Your task to perform on an android device: Open Android settings Image 0: 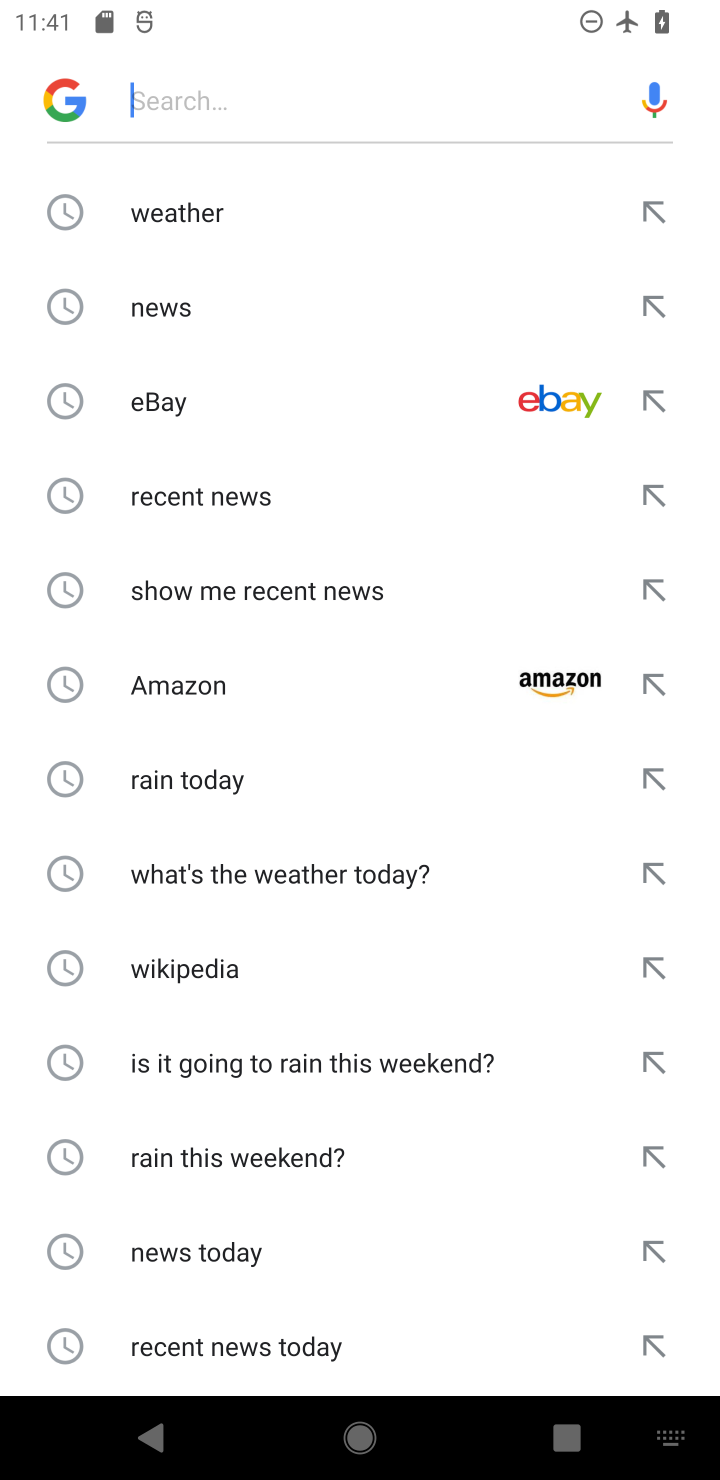
Step 0: press home button
Your task to perform on an android device: Open Android settings Image 1: 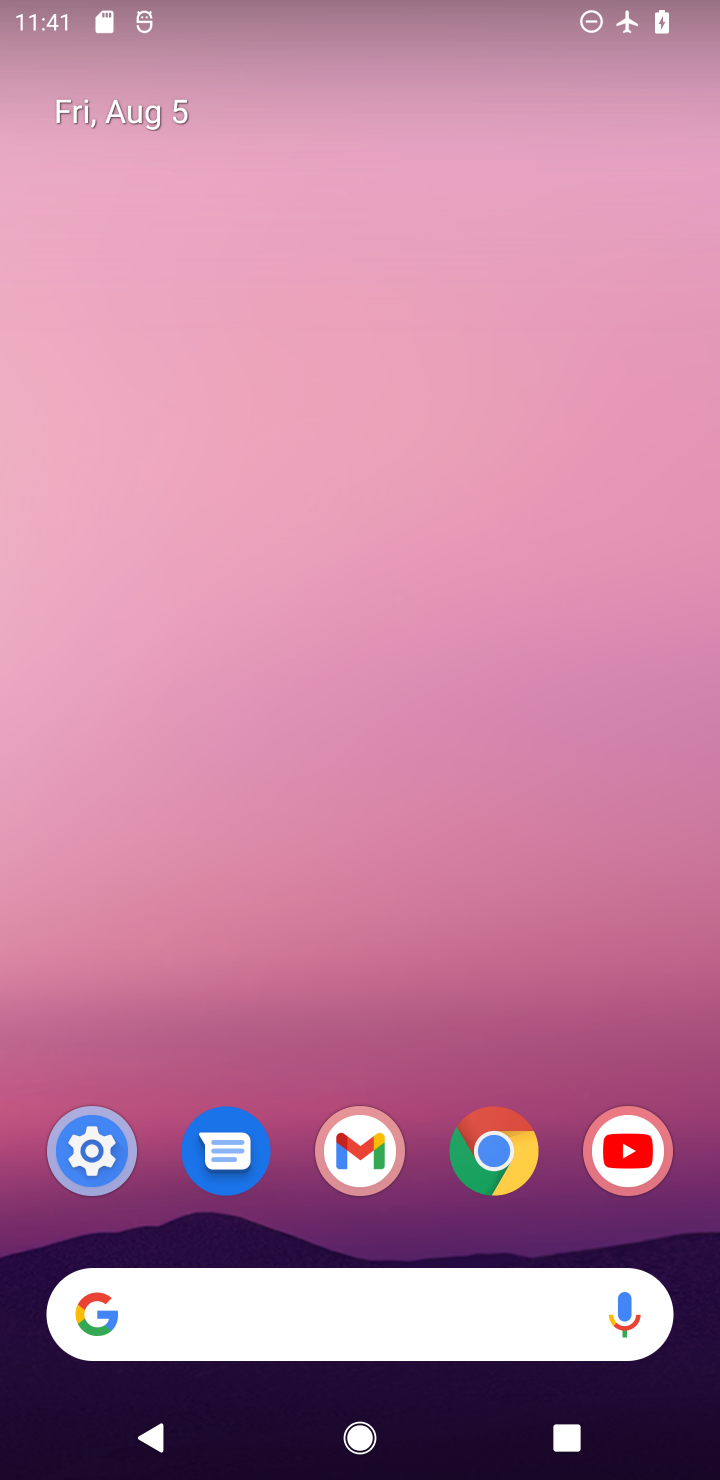
Step 1: click (101, 1167)
Your task to perform on an android device: Open Android settings Image 2: 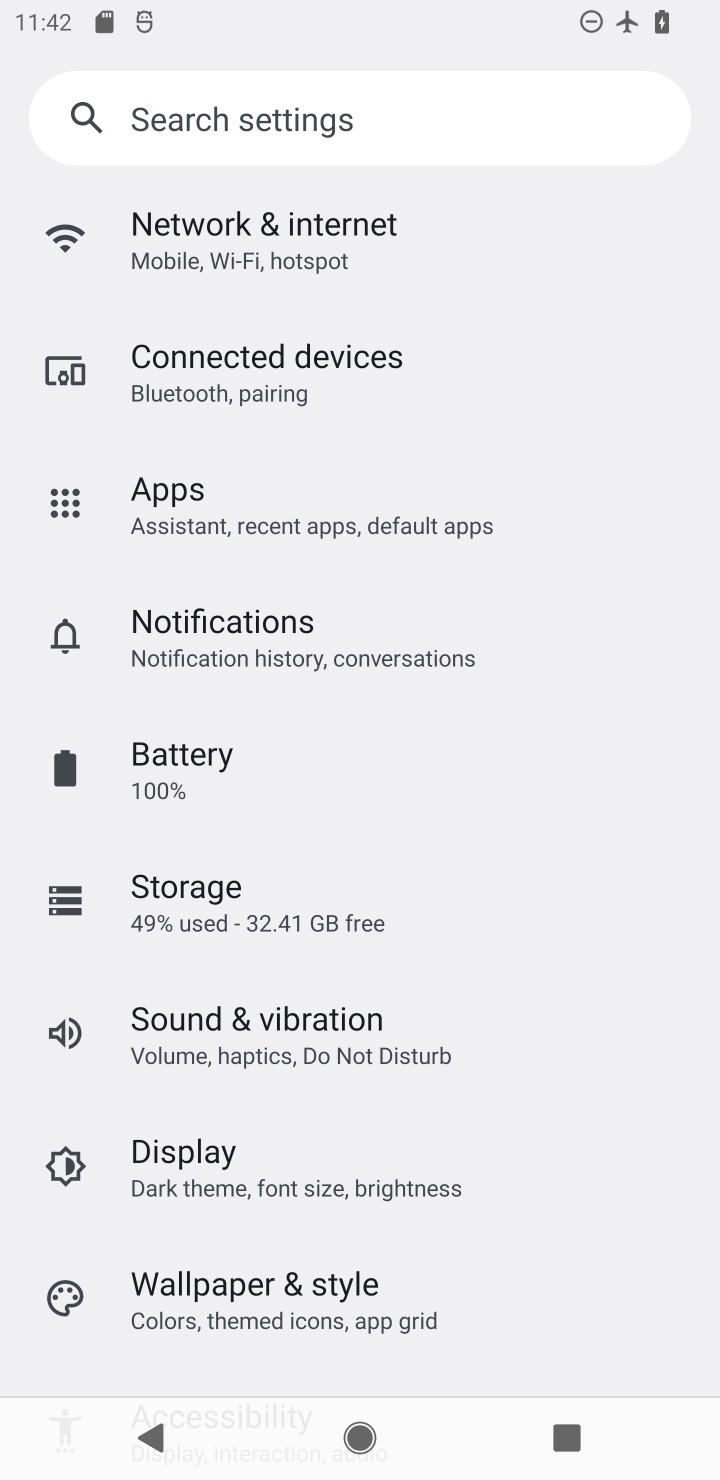
Step 2: drag from (313, 1243) to (313, 543)
Your task to perform on an android device: Open Android settings Image 3: 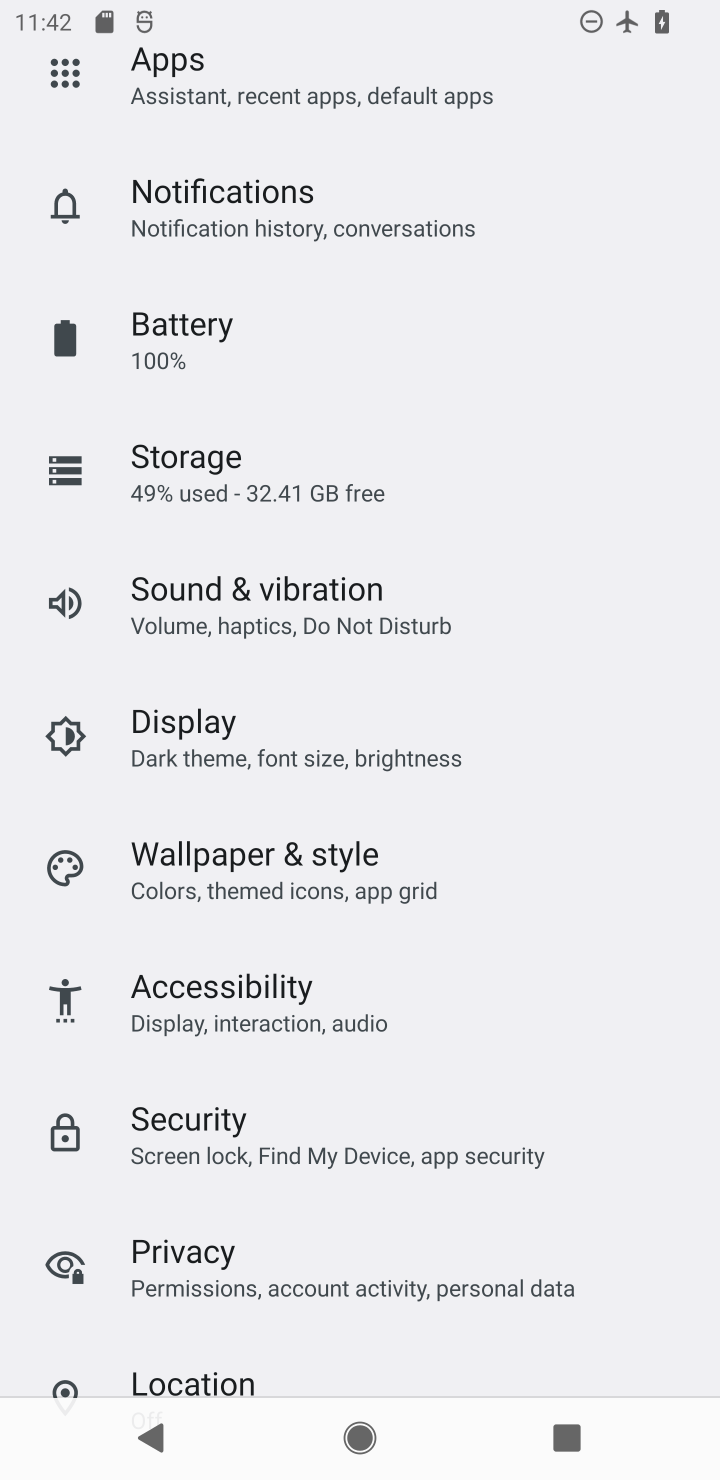
Step 3: drag from (300, 1251) to (284, 482)
Your task to perform on an android device: Open Android settings Image 4: 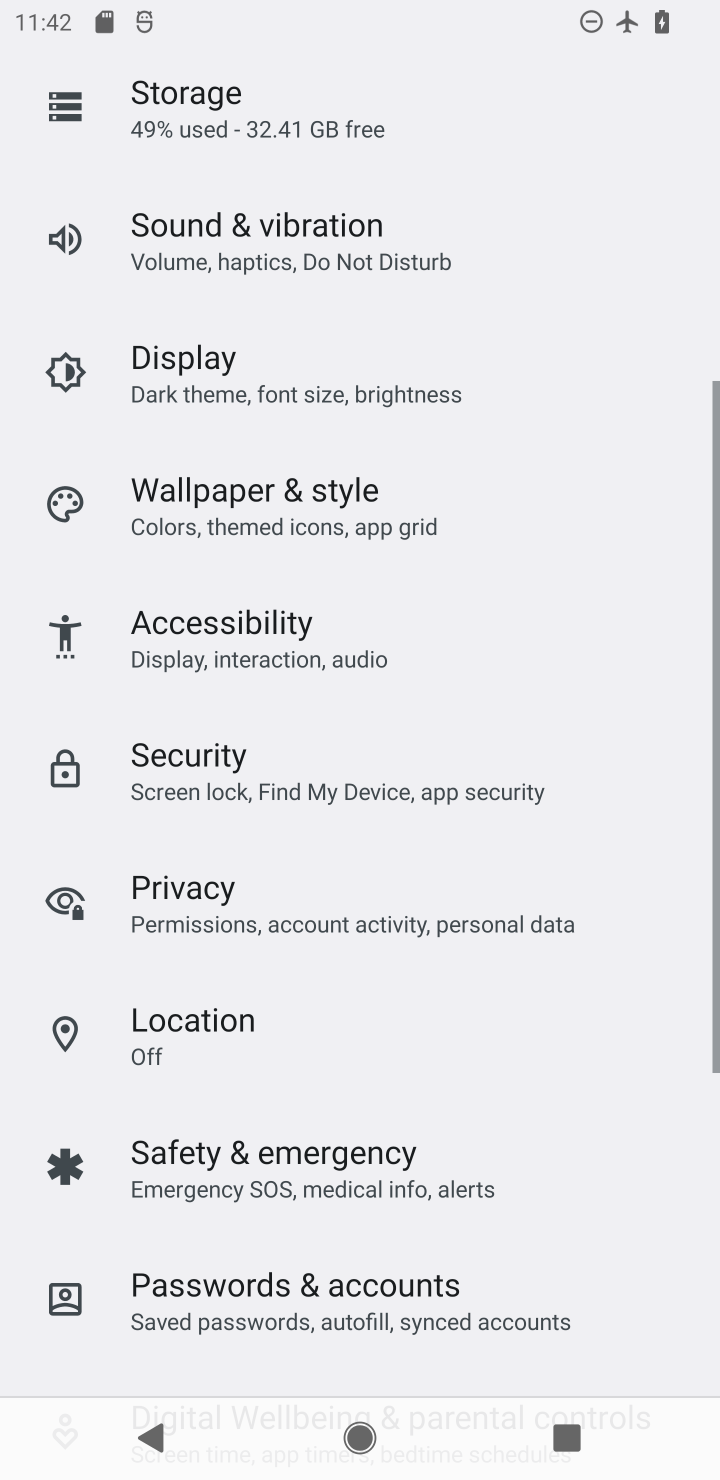
Step 4: drag from (320, 1086) to (285, 413)
Your task to perform on an android device: Open Android settings Image 5: 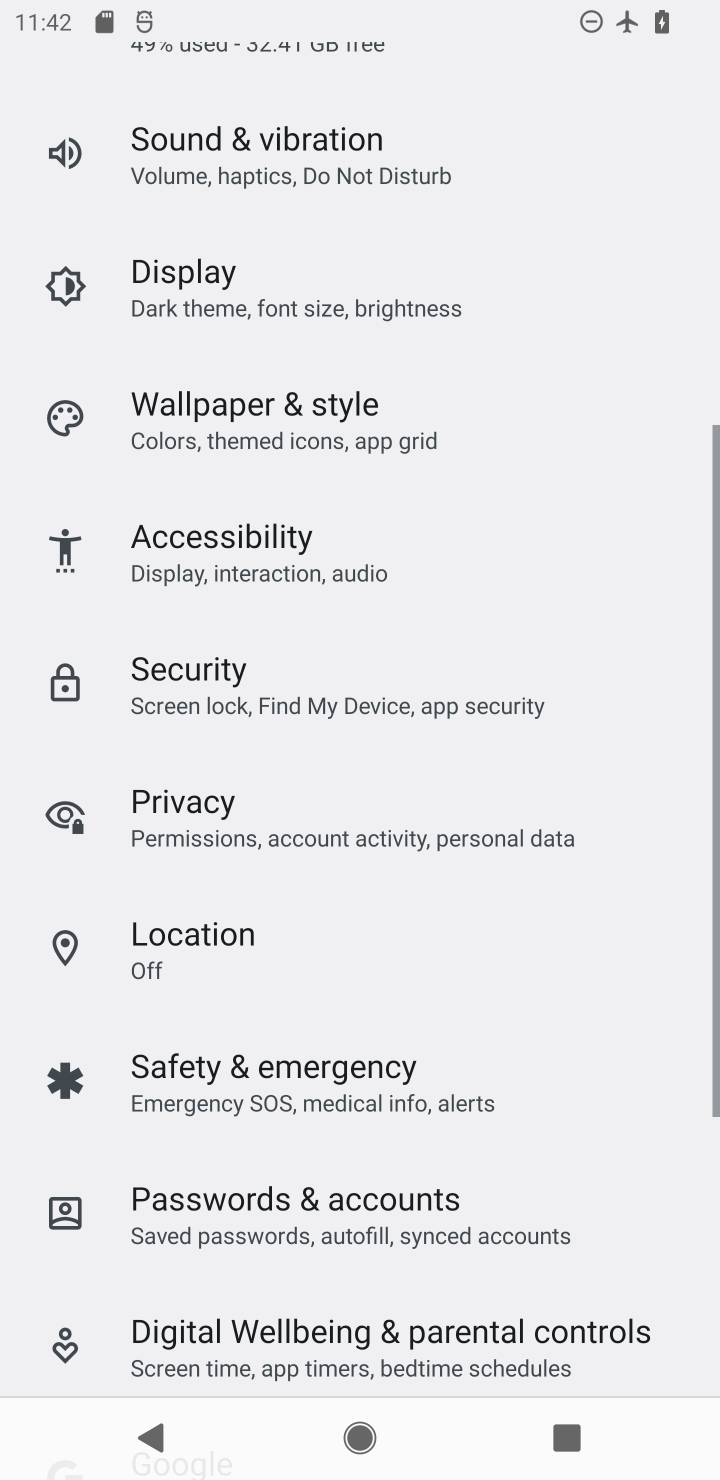
Step 5: drag from (331, 961) to (333, 332)
Your task to perform on an android device: Open Android settings Image 6: 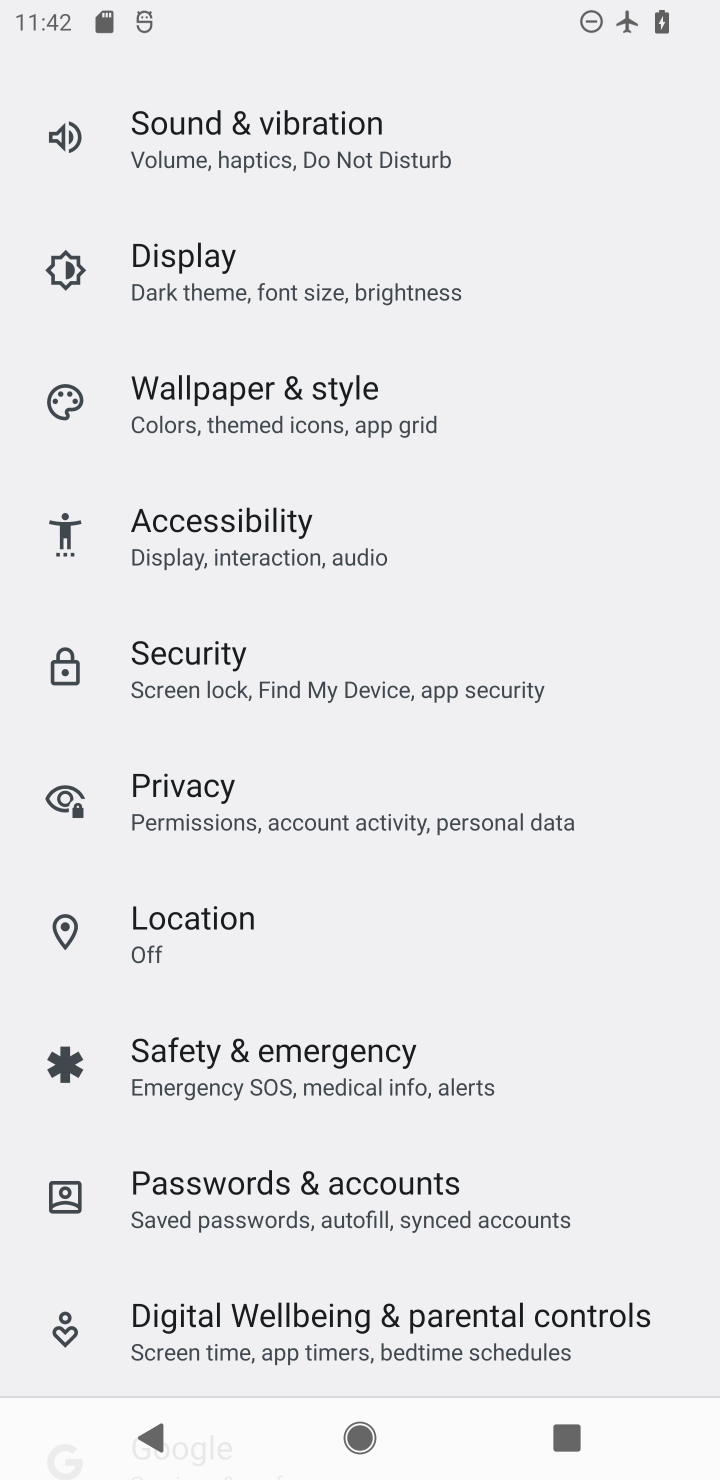
Step 6: drag from (388, 728) to (407, 329)
Your task to perform on an android device: Open Android settings Image 7: 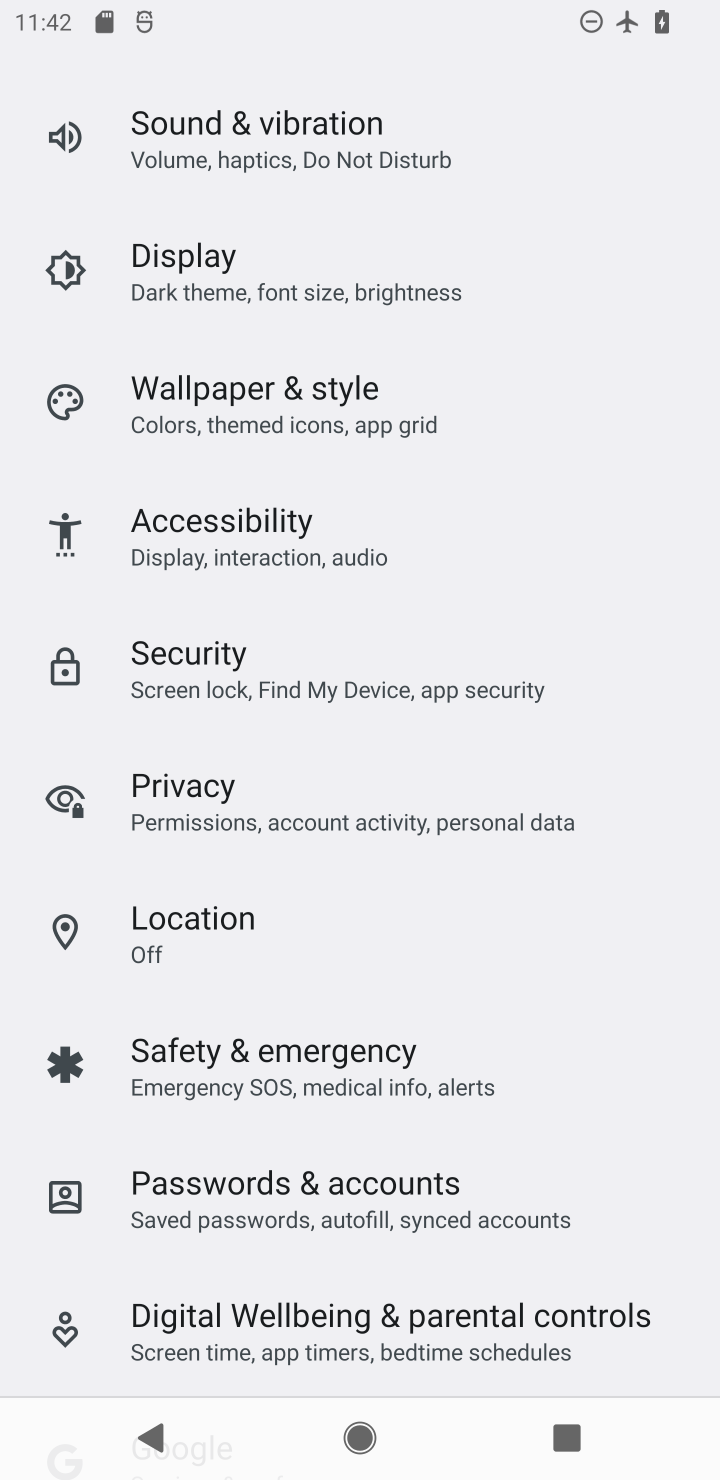
Step 7: drag from (402, 1161) to (402, 396)
Your task to perform on an android device: Open Android settings Image 8: 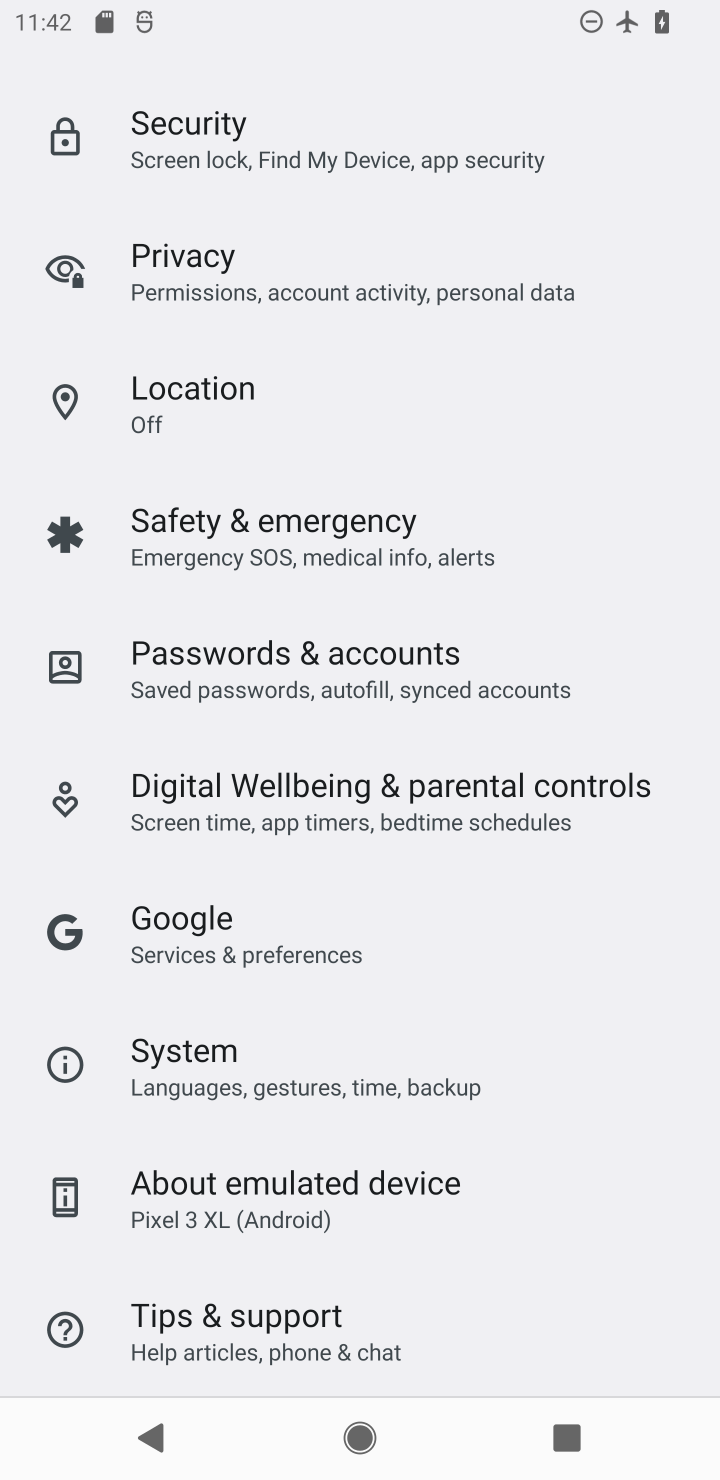
Step 8: click (276, 1222)
Your task to perform on an android device: Open Android settings Image 9: 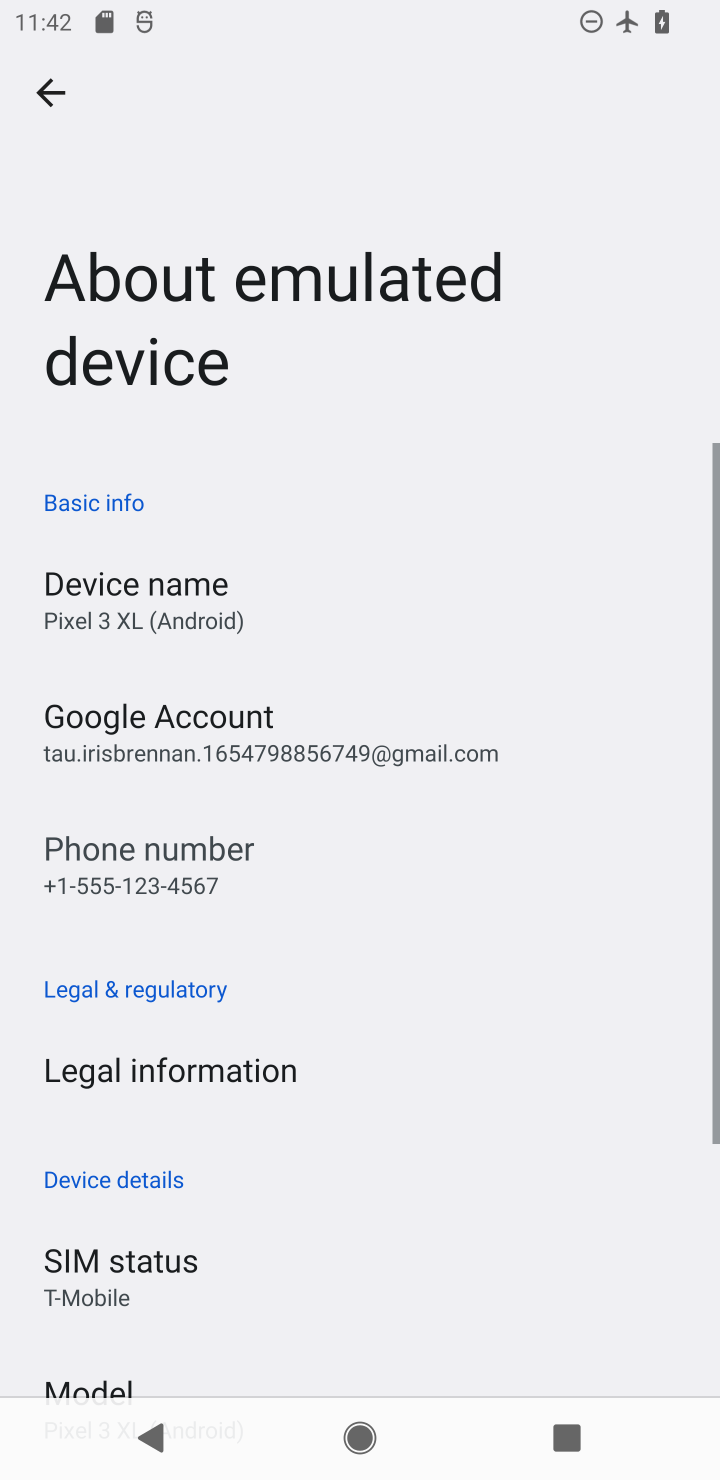
Step 9: drag from (276, 1152) to (355, 347)
Your task to perform on an android device: Open Android settings Image 10: 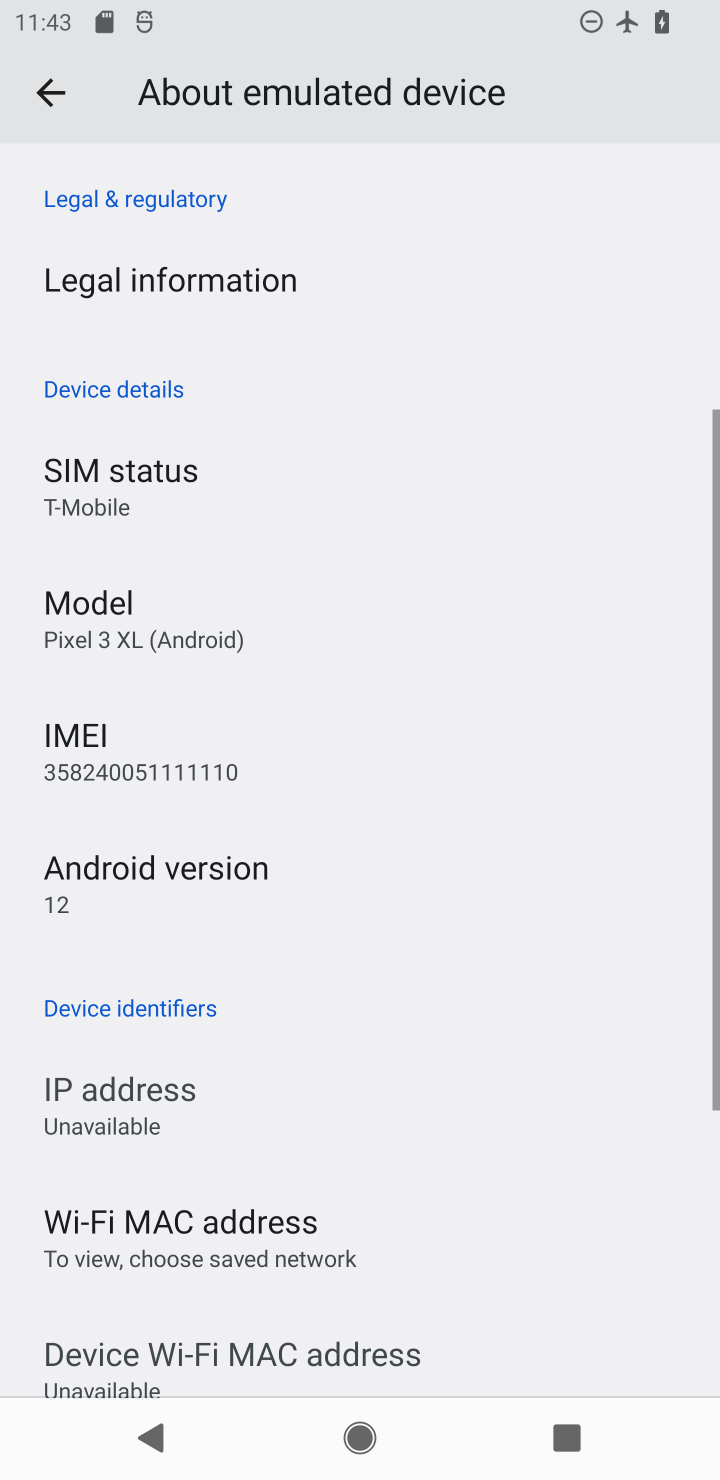
Step 10: click (174, 902)
Your task to perform on an android device: Open Android settings Image 11: 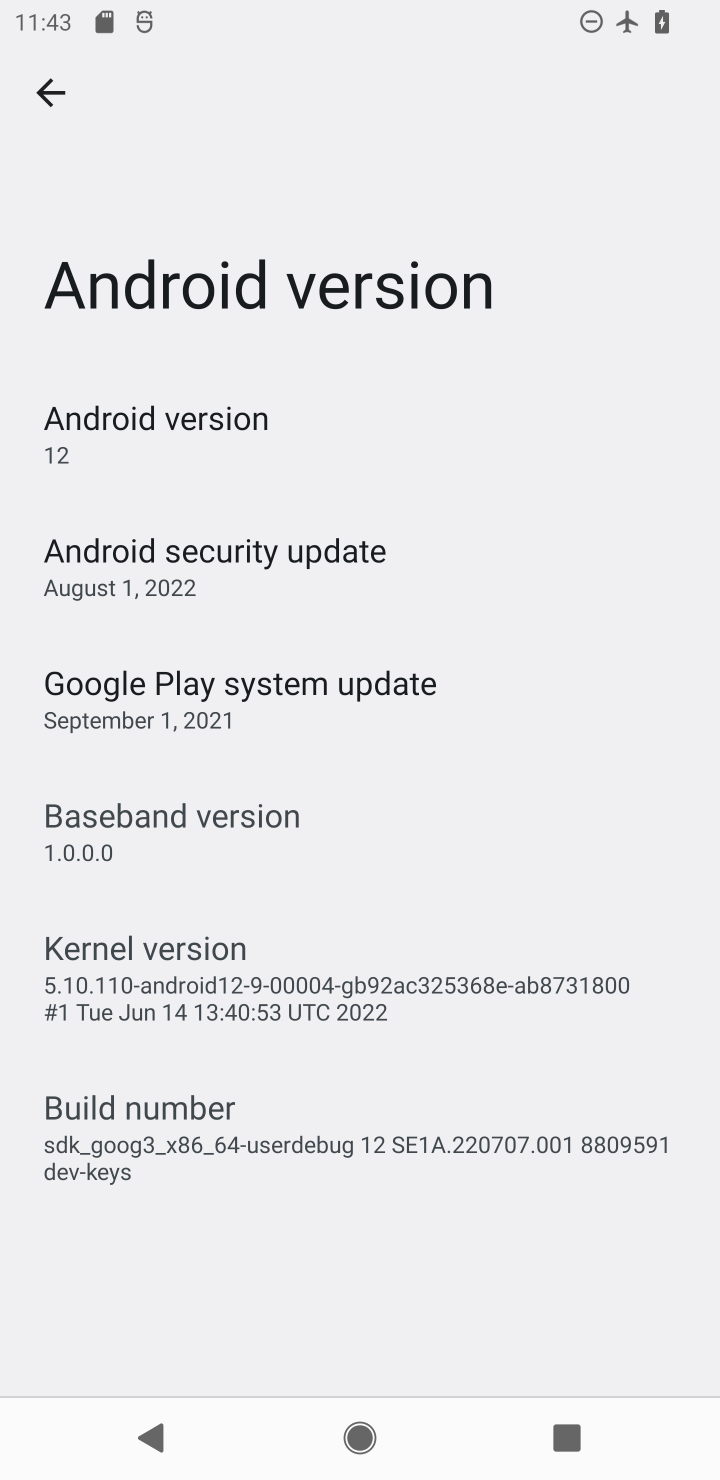
Step 11: task complete